Your task to perform on an android device: refresh tabs in the chrome app Image 0: 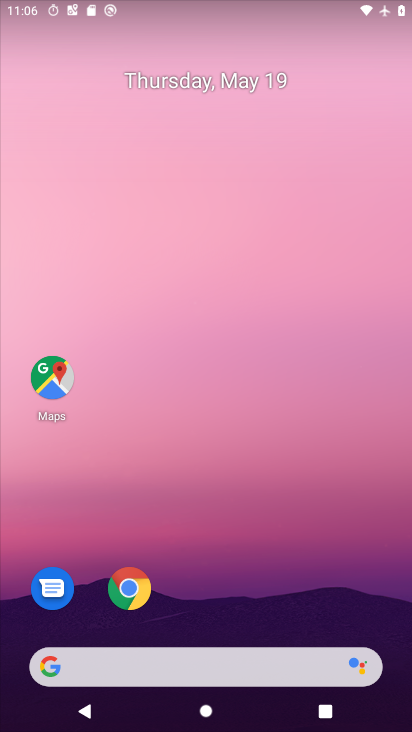
Step 0: press home button
Your task to perform on an android device: refresh tabs in the chrome app Image 1: 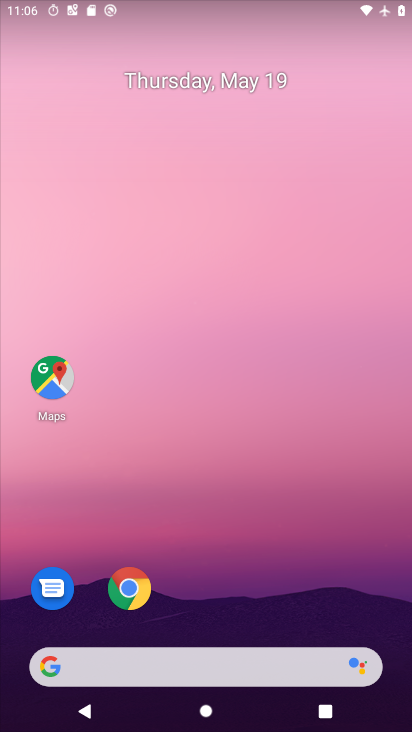
Step 1: click (135, 592)
Your task to perform on an android device: refresh tabs in the chrome app Image 2: 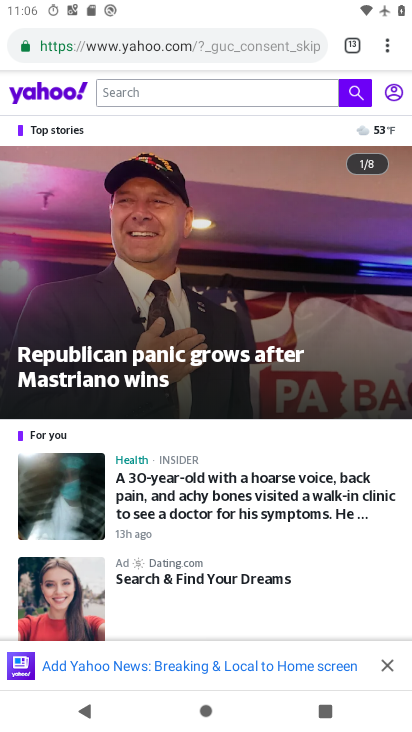
Step 2: click (383, 55)
Your task to perform on an android device: refresh tabs in the chrome app Image 3: 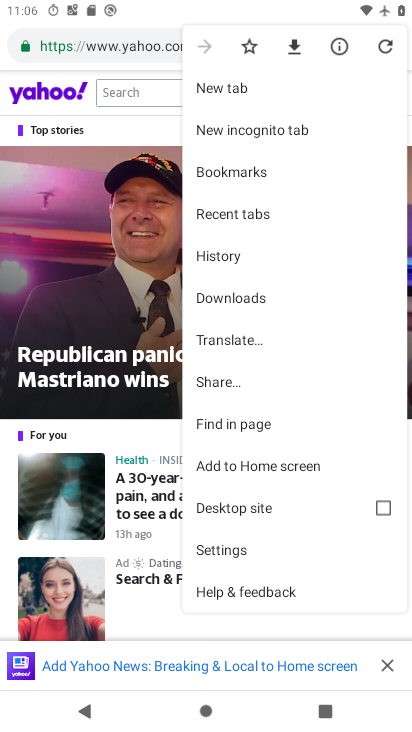
Step 3: click (382, 46)
Your task to perform on an android device: refresh tabs in the chrome app Image 4: 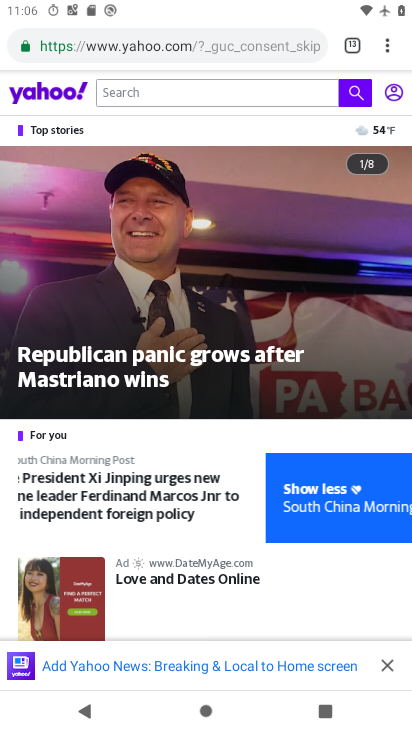
Step 4: task complete